Your task to perform on an android device: turn off notifications in google photos Image 0: 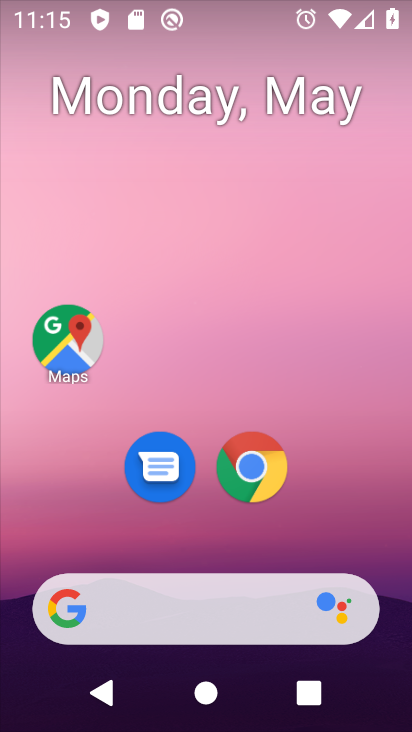
Step 0: drag from (307, 530) to (357, 60)
Your task to perform on an android device: turn off notifications in google photos Image 1: 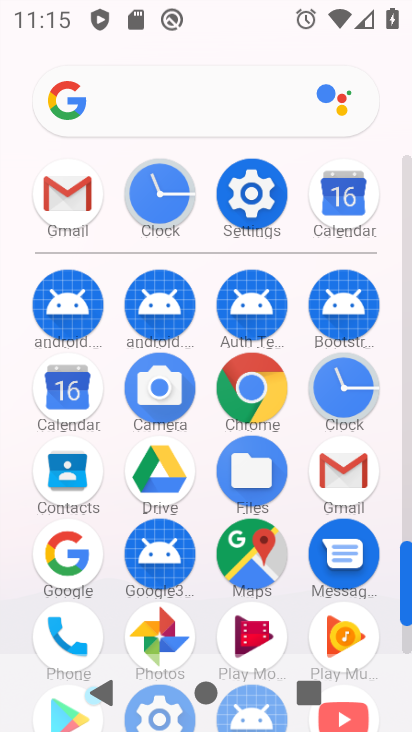
Step 1: click (177, 624)
Your task to perform on an android device: turn off notifications in google photos Image 2: 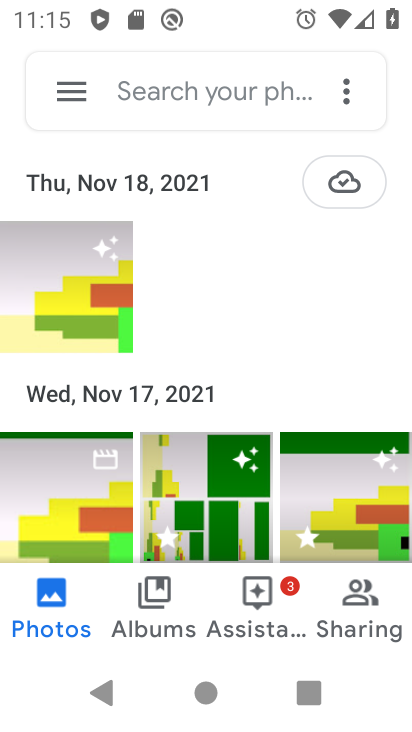
Step 2: click (82, 105)
Your task to perform on an android device: turn off notifications in google photos Image 3: 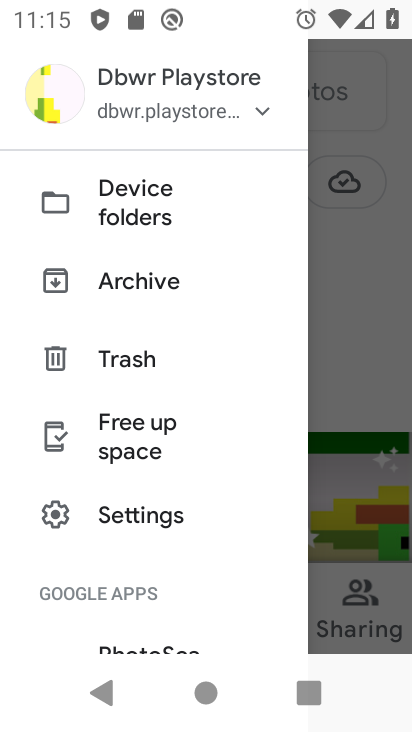
Step 3: click (133, 519)
Your task to perform on an android device: turn off notifications in google photos Image 4: 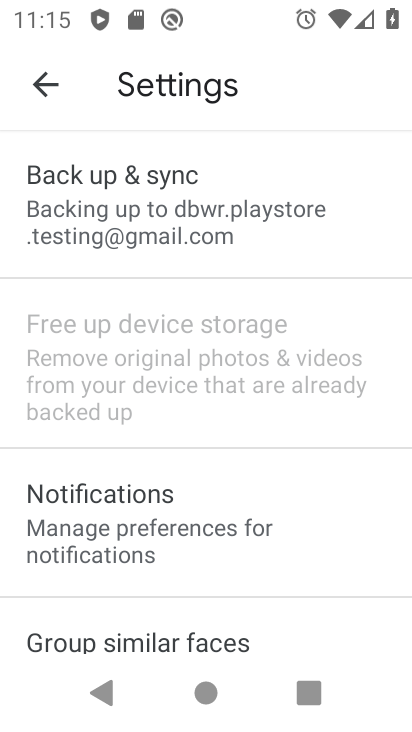
Step 4: drag from (142, 589) to (159, 459)
Your task to perform on an android device: turn off notifications in google photos Image 5: 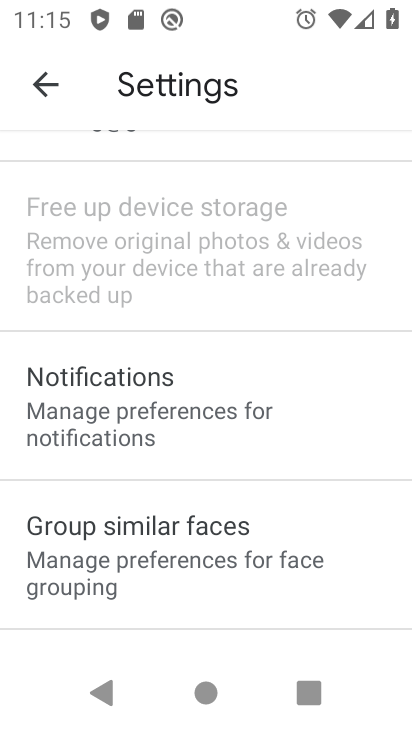
Step 5: click (178, 435)
Your task to perform on an android device: turn off notifications in google photos Image 6: 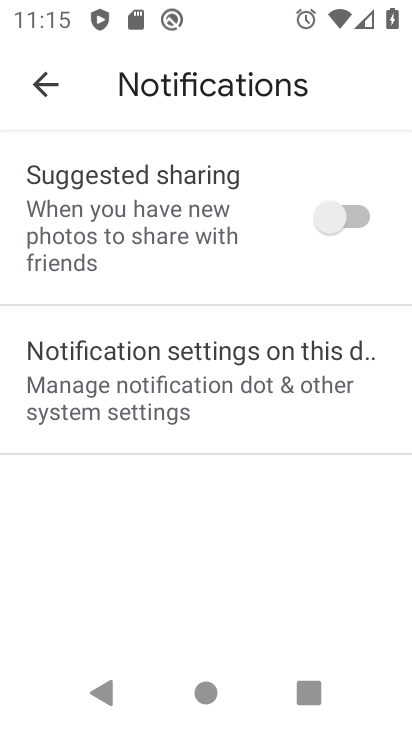
Step 6: click (377, 184)
Your task to perform on an android device: turn off notifications in google photos Image 7: 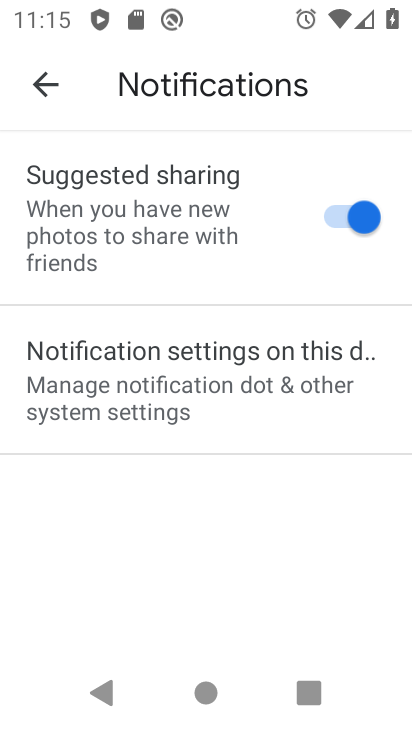
Step 7: task complete